Your task to perform on an android device: open device folders in google photos Image 0: 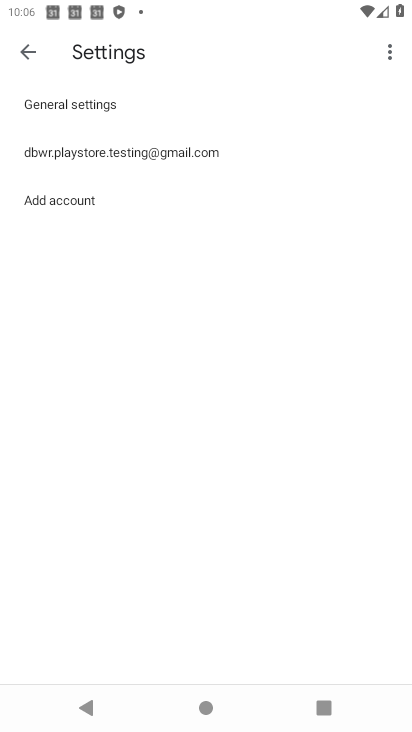
Step 0: press home button
Your task to perform on an android device: open device folders in google photos Image 1: 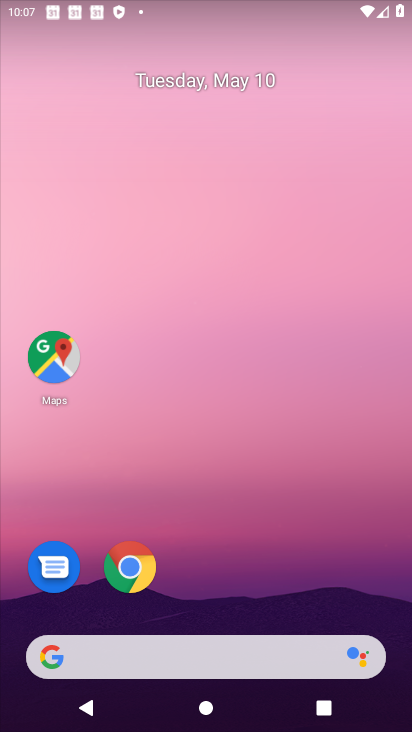
Step 1: drag from (319, 645) to (234, 150)
Your task to perform on an android device: open device folders in google photos Image 2: 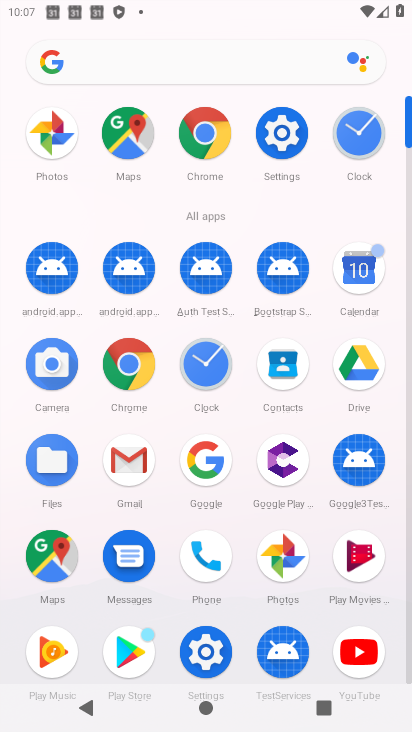
Step 2: click (269, 551)
Your task to perform on an android device: open device folders in google photos Image 3: 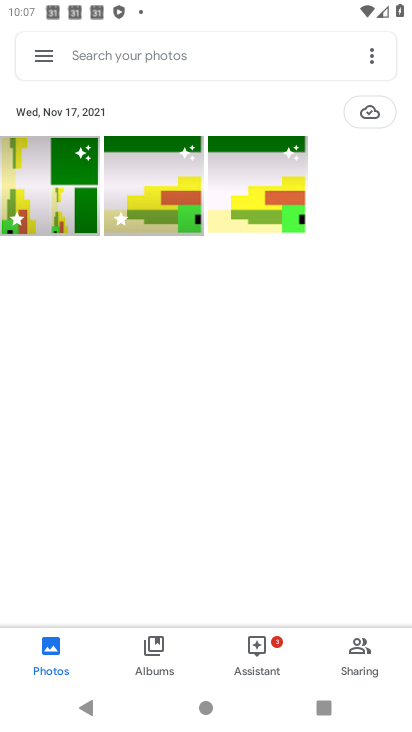
Step 3: click (368, 656)
Your task to perform on an android device: open device folders in google photos Image 4: 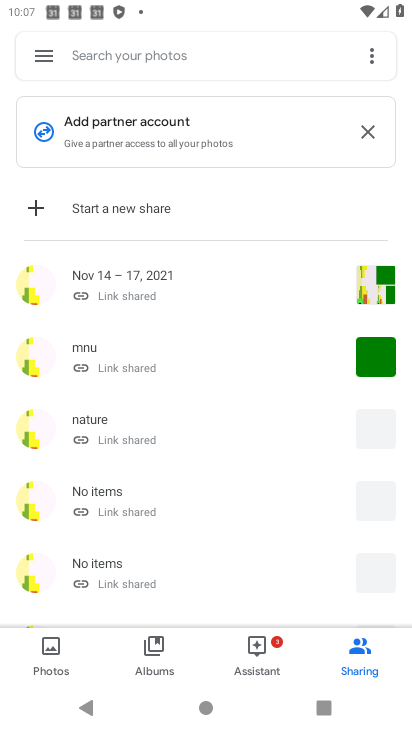
Step 4: click (48, 655)
Your task to perform on an android device: open device folders in google photos Image 5: 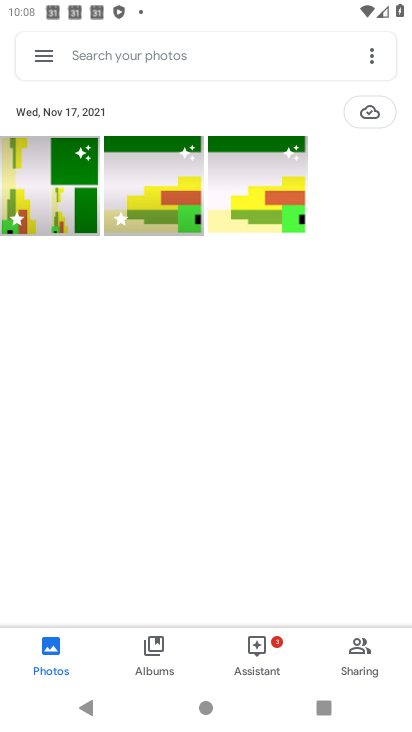
Step 5: click (47, 42)
Your task to perform on an android device: open device folders in google photos Image 6: 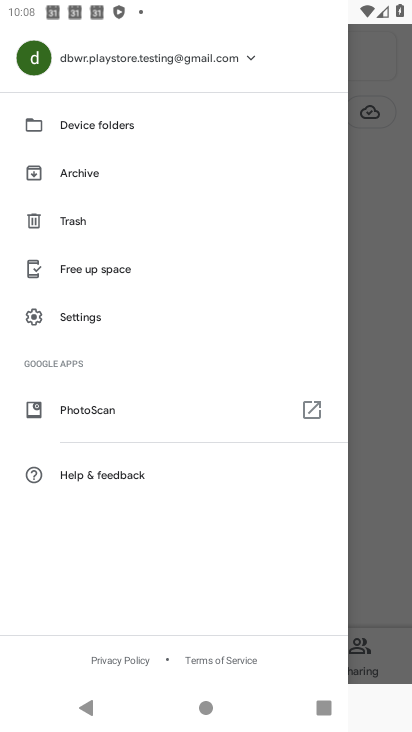
Step 6: click (85, 117)
Your task to perform on an android device: open device folders in google photos Image 7: 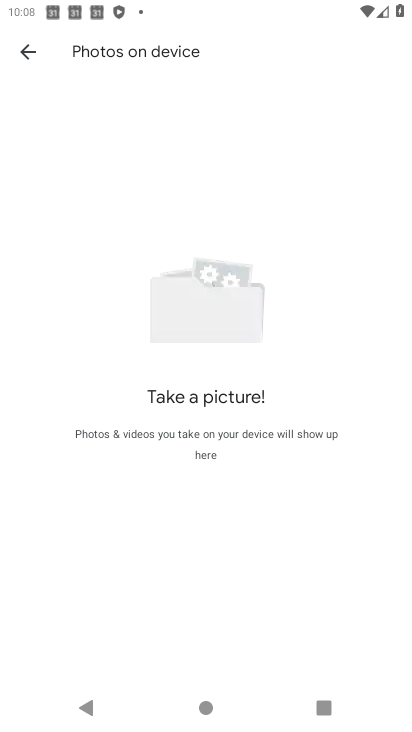
Step 7: task complete